Your task to perform on an android device: What's on my calendar today? Image 0: 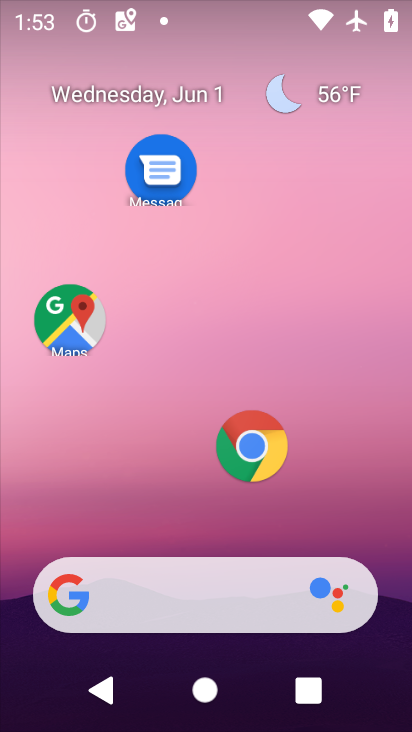
Step 0: drag from (19, 614) to (285, 163)
Your task to perform on an android device: What's on my calendar today? Image 1: 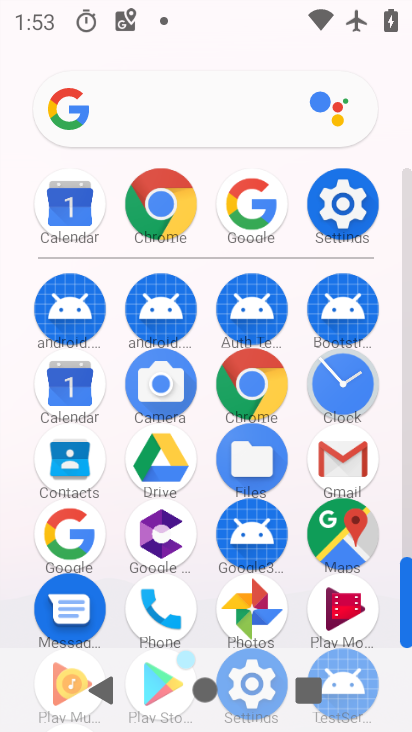
Step 1: click (63, 393)
Your task to perform on an android device: What's on my calendar today? Image 2: 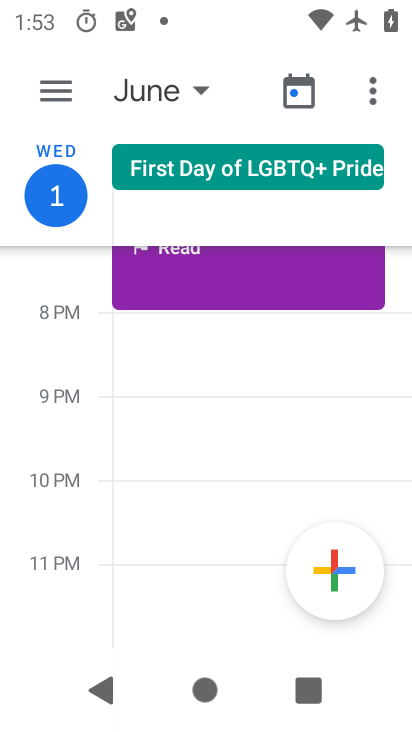
Step 2: task complete